Your task to perform on an android device: visit the assistant section in the google photos Image 0: 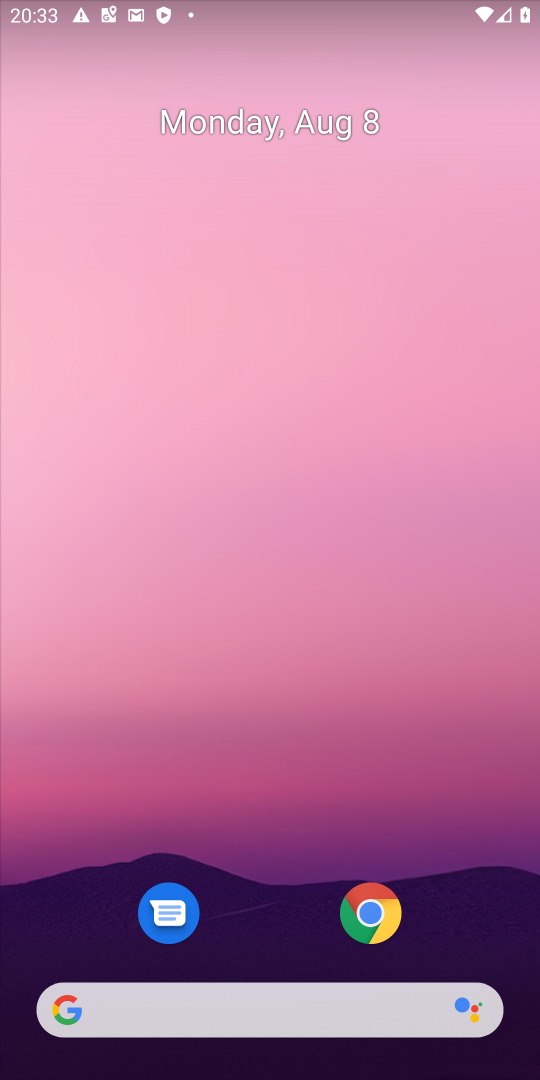
Step 0: press home button
Your task to perform on an android device: visit the assistant section in the google photos Image 1: 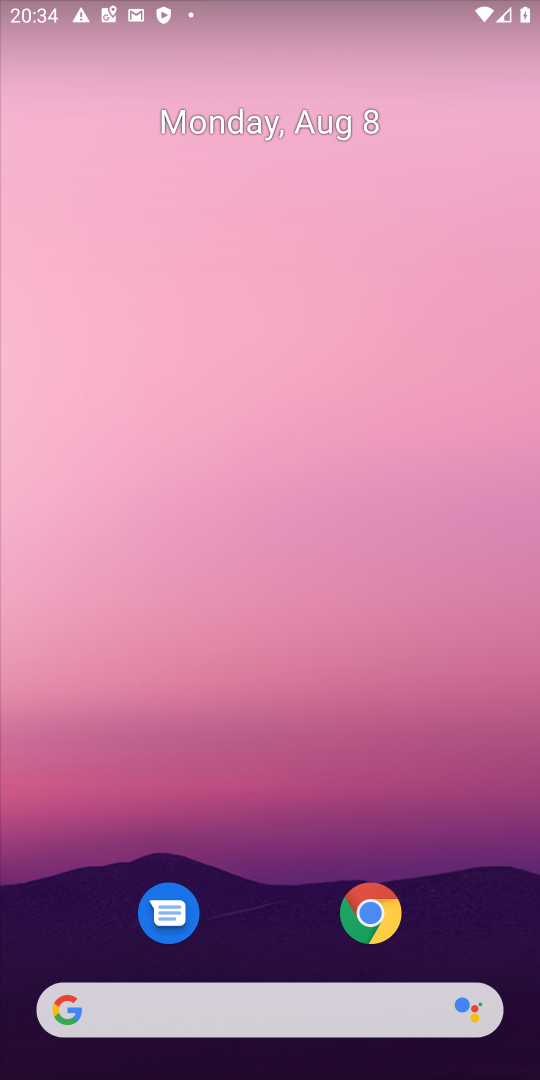
Step 1: drag from (263, 881) to (156, 9)
Your task to perform on an android device: visit the assistant section in the google photos Image 2: 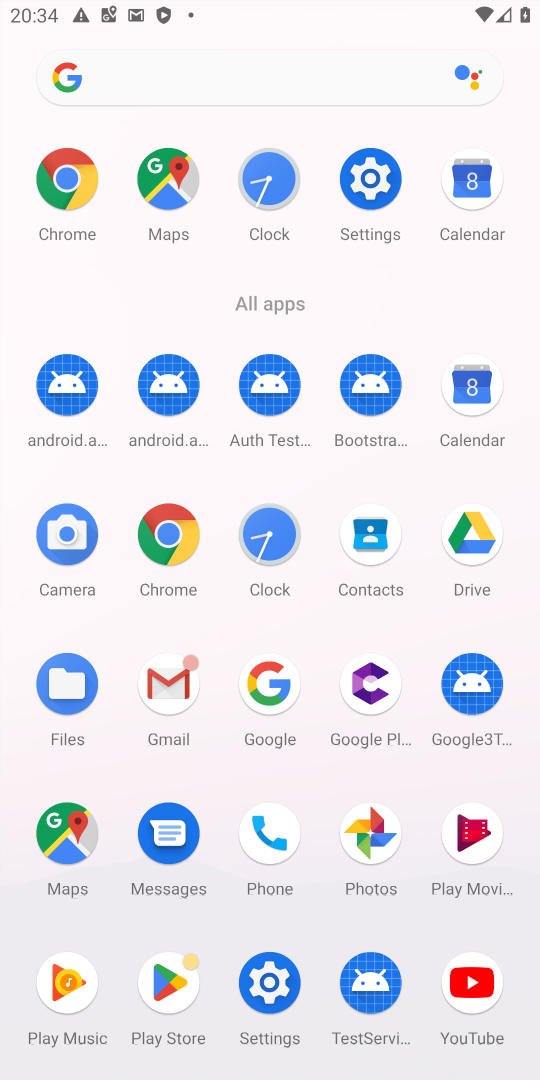
Step 2: click (377, 852)
Your task to perform on an android device: visit the assistant section in the google photos Image 3: 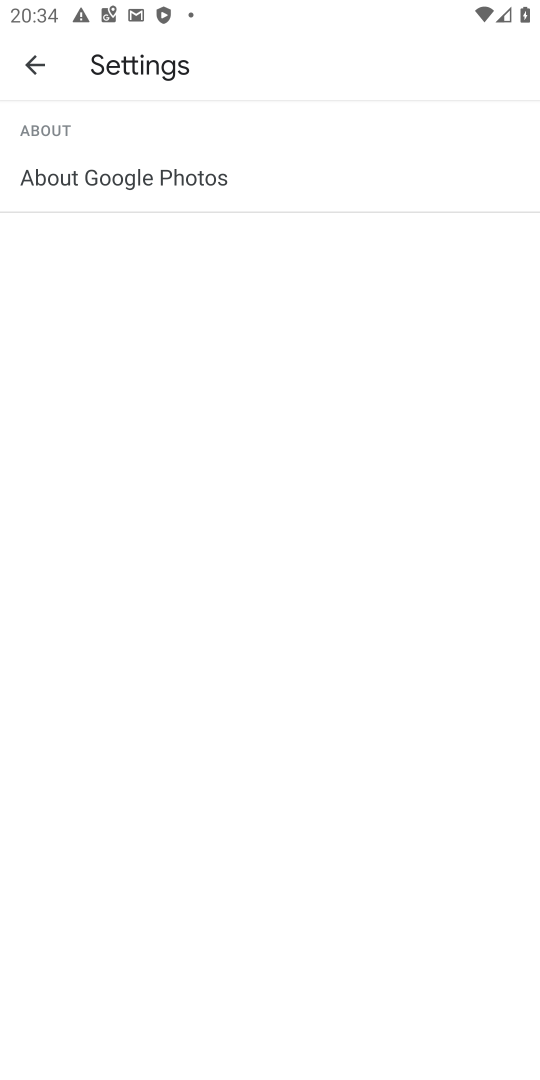
Step 3: click (41, 64)
Your task to perform on an android device: visit the assistant section in the google photos Image 4: 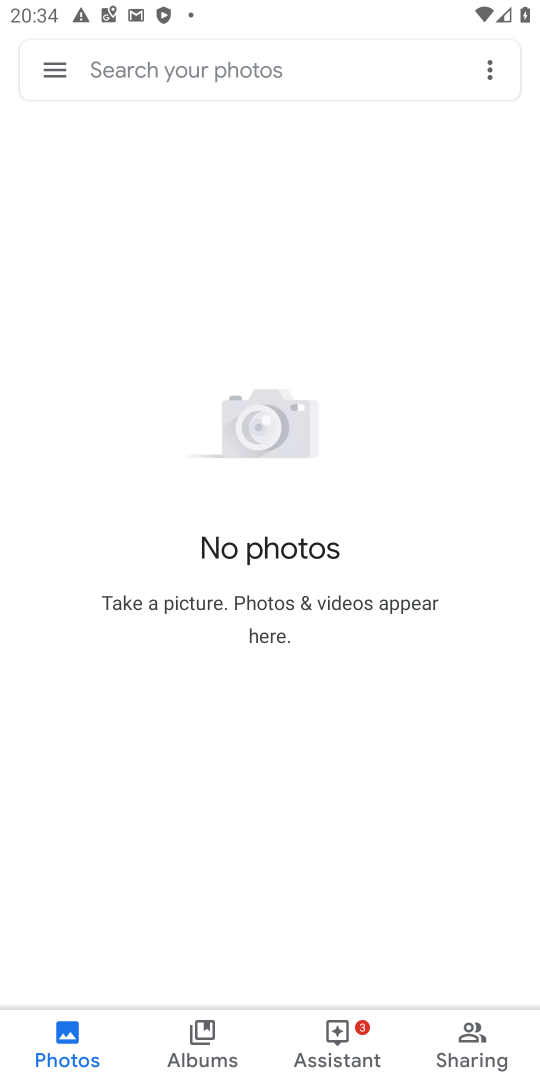
Step 4: click (361, 1008)
Your task to perform on an android device: visit the assistant section in the google photos Image 5: 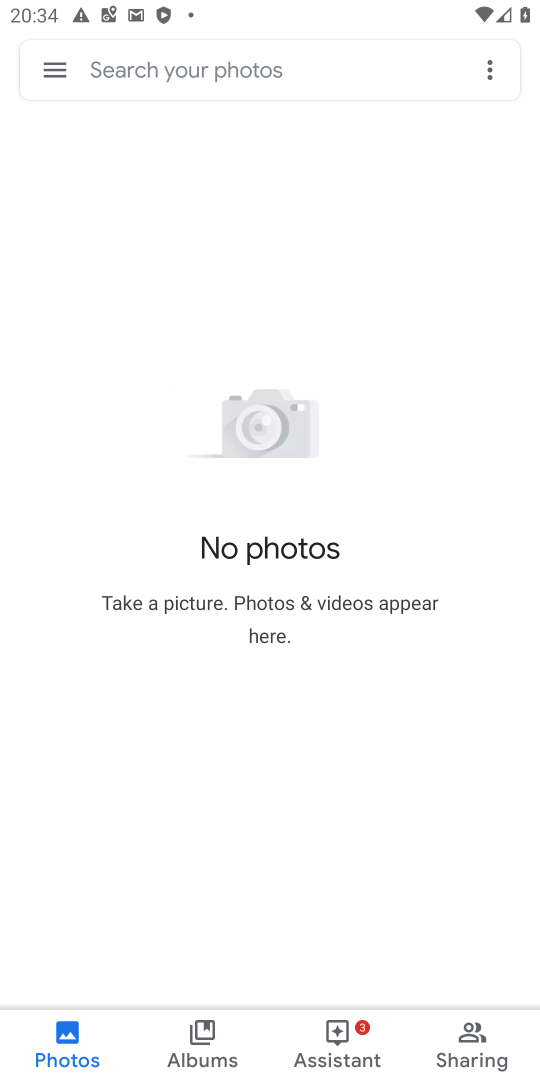
Step 5: click (356, 1046)
Your task to perform on an android device: visit the assistant section in the google photos Image 6: 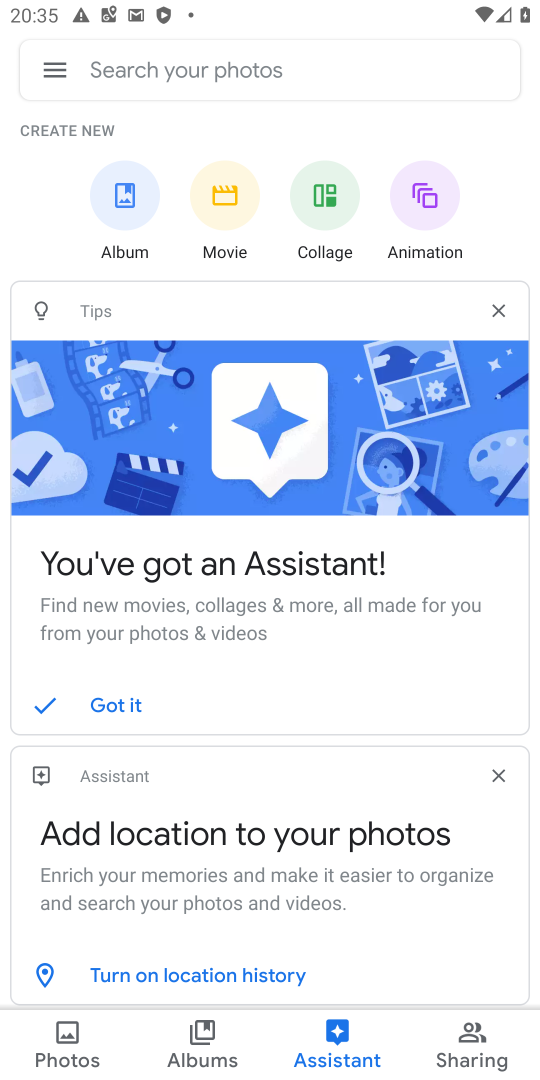
Step 6: task complete